Your task to perform on an android device: add a label to a message in the gmail app Image 0: 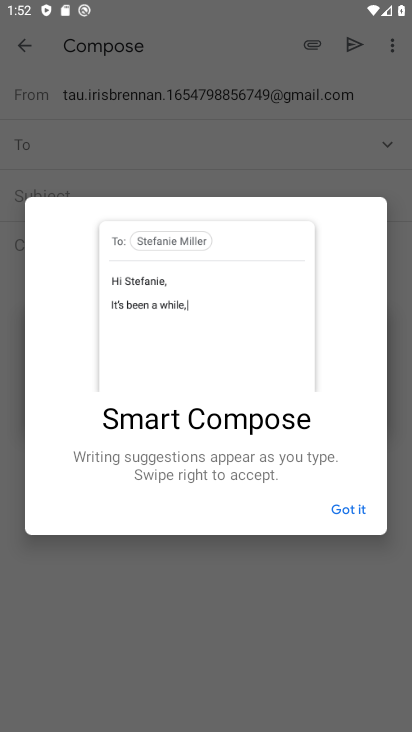
Step 0: press home button
Your task to perform on an android device: add a label to a message in the gmail app Image 1: 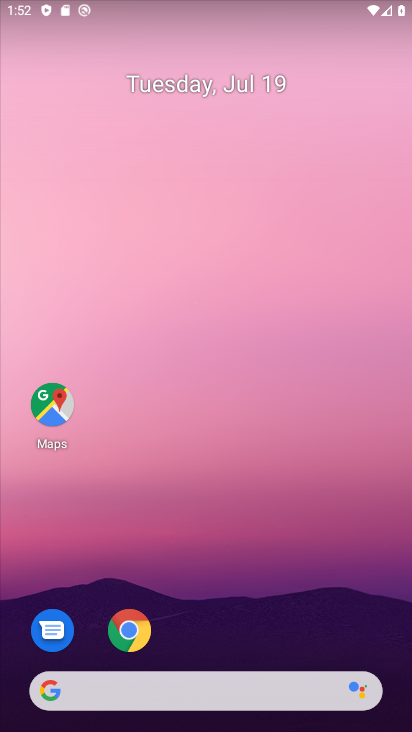
Step 1: drag from (233, 579) to (259, 38)
Your task to perform on an android device: add a label to a message in the gmail app Image 2: 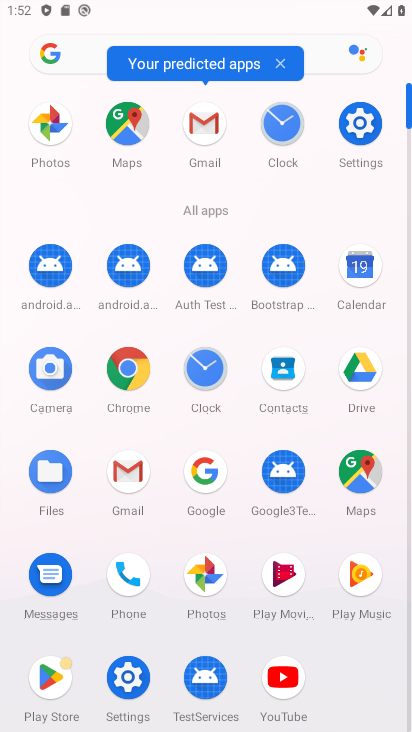
Step 2: click (214, 128)
Your task to perform on an android device: add a label to a message in the gmail app Image 3: 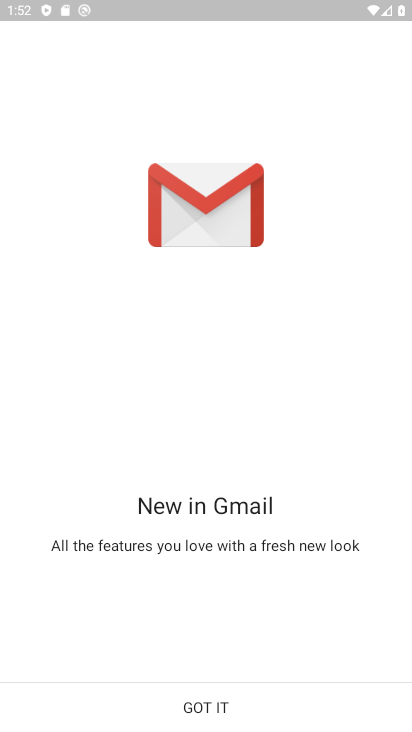
Step 3: click (246, 696)
Your task to perform on an android device: add a label to a message in the gmail app Image 4: 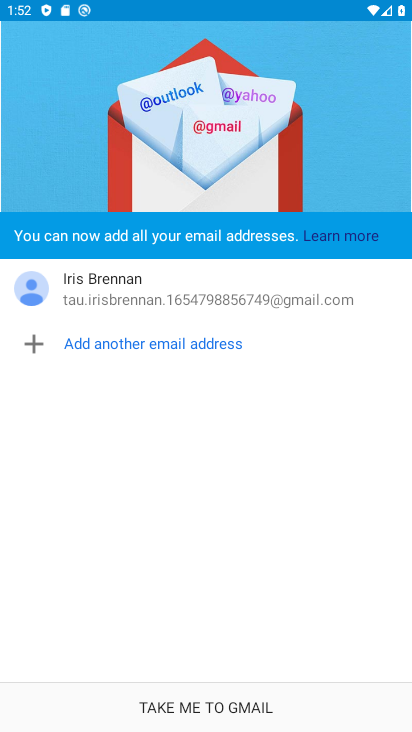
Step 4: click (246, 696)
Your task to perform on an android device: add a label to a message in the gmail app Image 5: 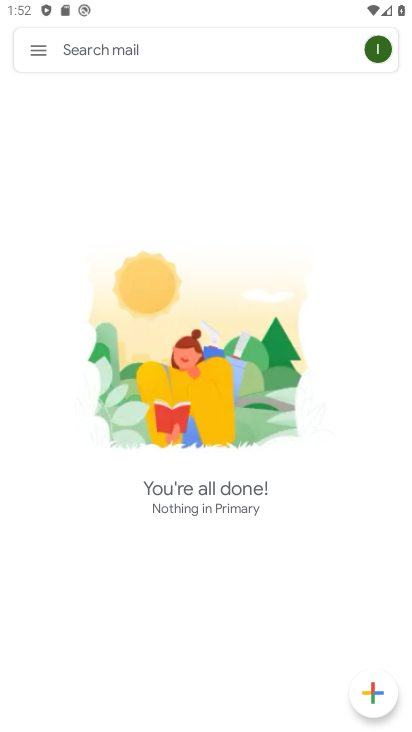
Step 5: click (40, 55)
Your task to perform on an android device: add a label to a message in the gmail app Image 6: 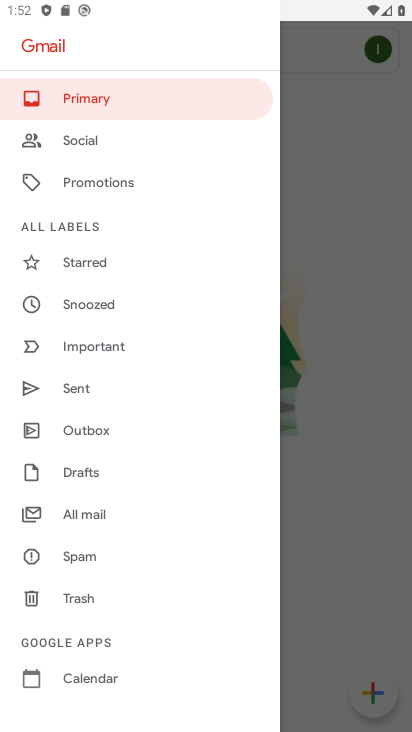
Step 6: click (89, 504)
Your task to perform on an android device: add a label to a message in the gmail app Image 7: 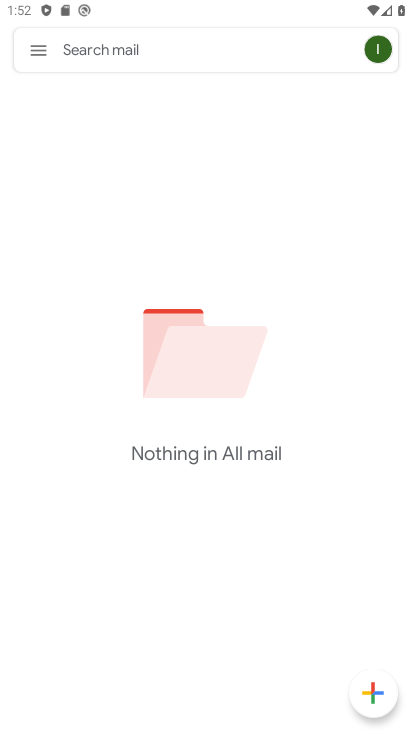
Step 7: task complete